Your task to perform on an android device: Search for Italian restaurants on Maps Image 0: 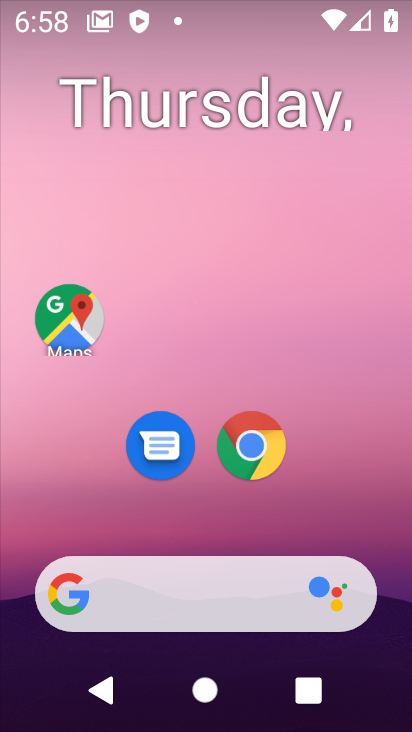
Step 0: drag from (383, 616) to (176, 35)
Your task to perform on an android device: Search for Italian restaurants on Maps Image 1: 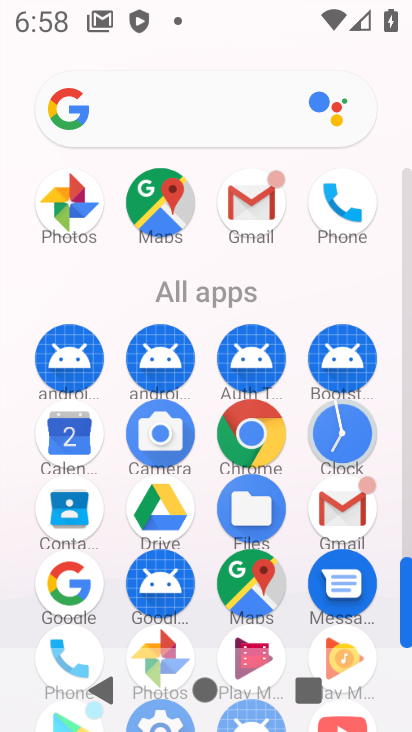
Step 1: click (258, 598)
Your task to perform on an android device: Search for Italian restaurants on Maps Image 2: 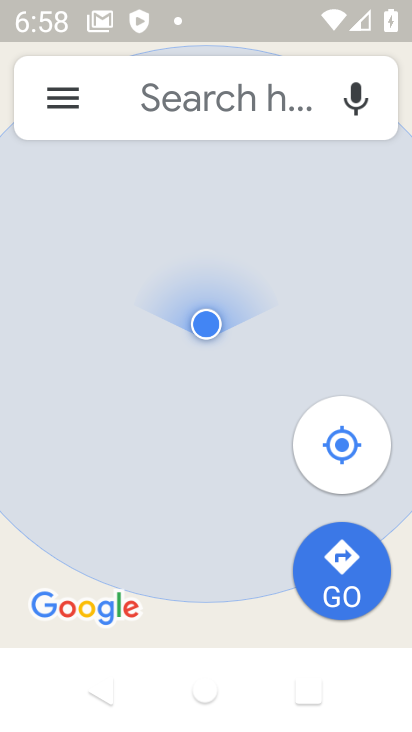
Step 2: click (171, 106)
Your task to perform on an android device: Search for Italian restaurants on Maps Image 3: 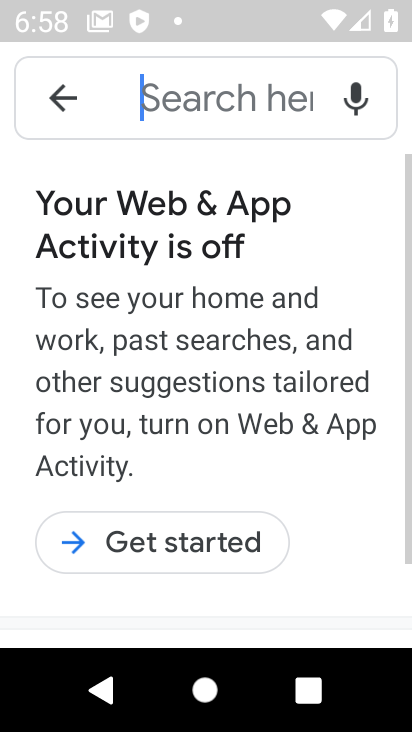
Step 3: click (219, 551)
Your task to perform on an android device: Search for Italian restaurants on Maps Image 4: 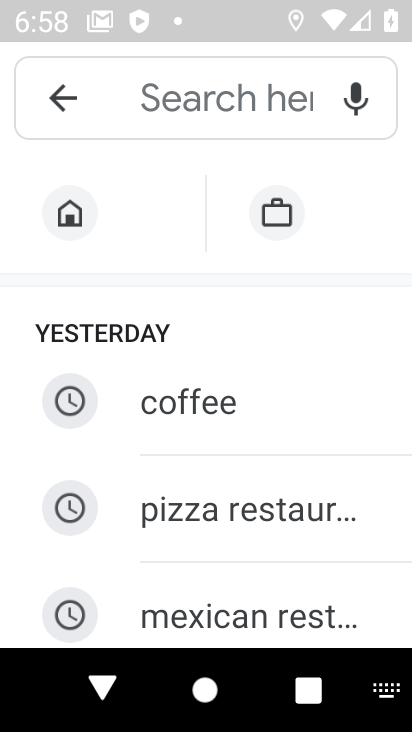
Step 4: drag from (219, 551) to (171, 59)
Your task to perform on an android device: Search for Italian restaurants on Maps Image 5: 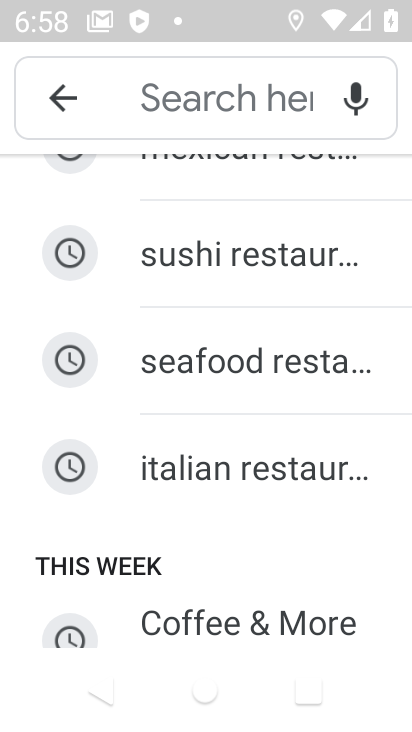
Step 5: click (241, 470)
Your task to perform on an android device: Search for Italian restaurants on Maps Image 6: 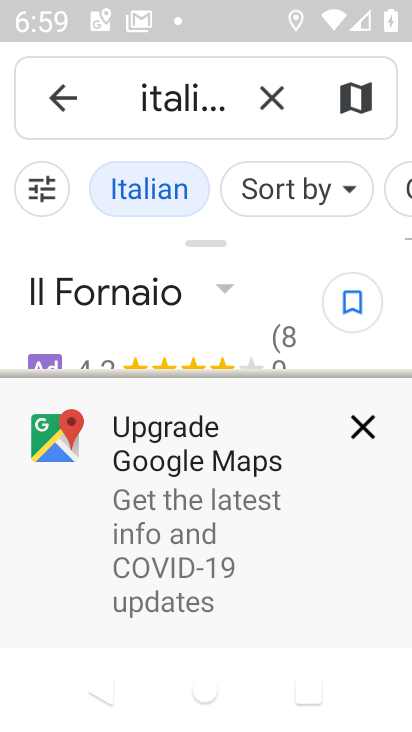
Step 6: task complete